Your task to perform on an android device: What's on my calendar today? Image 0: 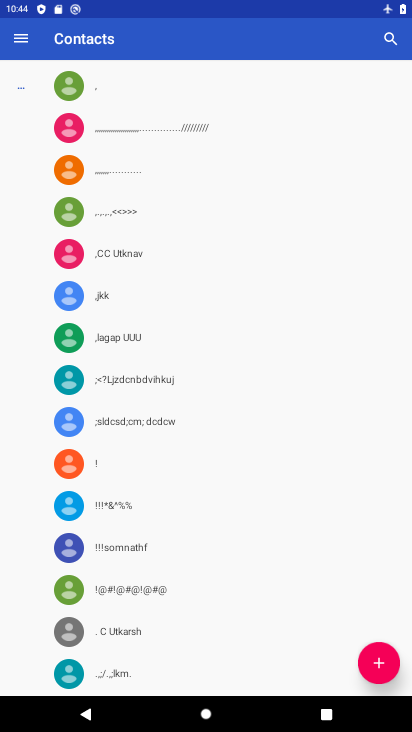
Step 0: press home button
Your task to perform on an android device: What's on my calendar today? Image 1: 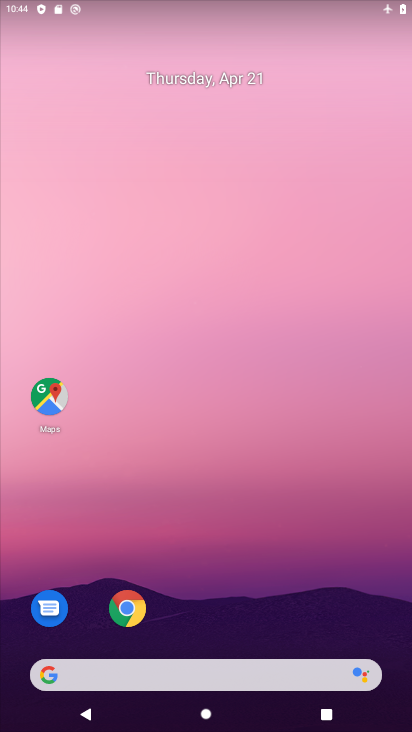
Step 1: drag from (165, 628) to (246, 169)
Your task to perform on an android device: What's on my calendar today? Image 2: 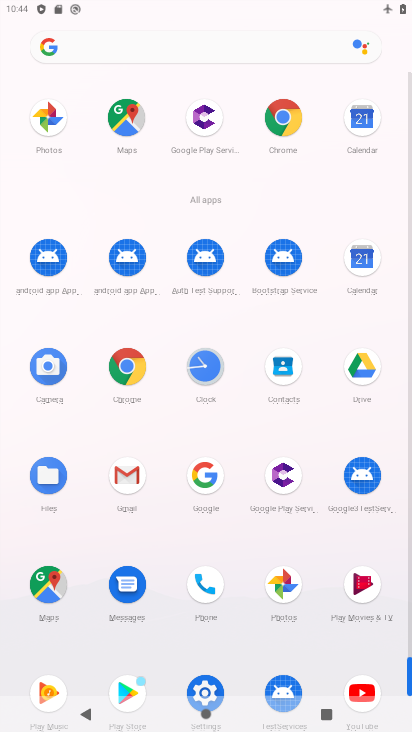
Step 2: click (358, 127)
Your task to perform on an android device: What's on my calendar today? Image 3: 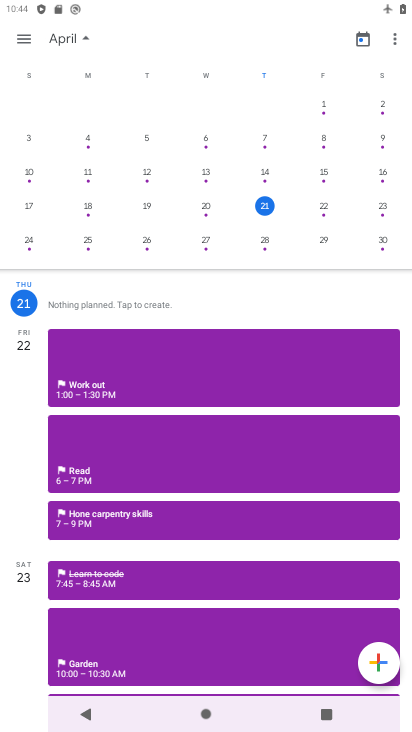
Step 3: click (259, 201)
Your task to perform on an android device: What's on my calendar today? Image 4: 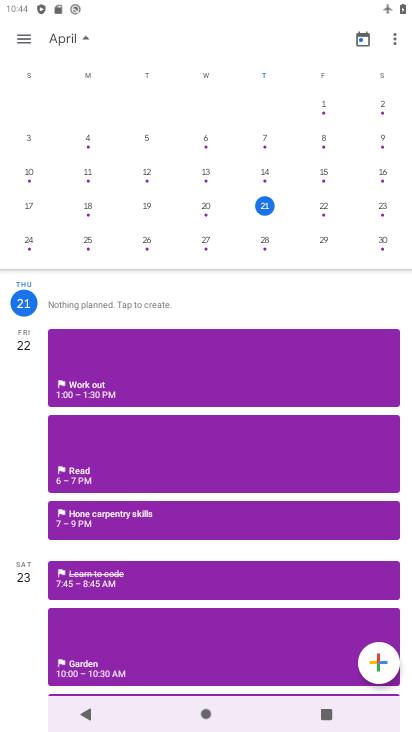
Step 4: task complete